Your task to perform on an android device: change the clock display to analog Image 0: 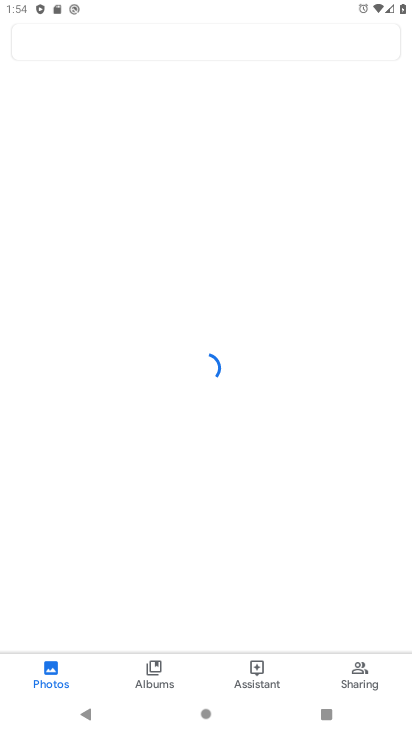
Step 0: press home button
Your task to perform on an android device: change the clock display to analog Image 1: 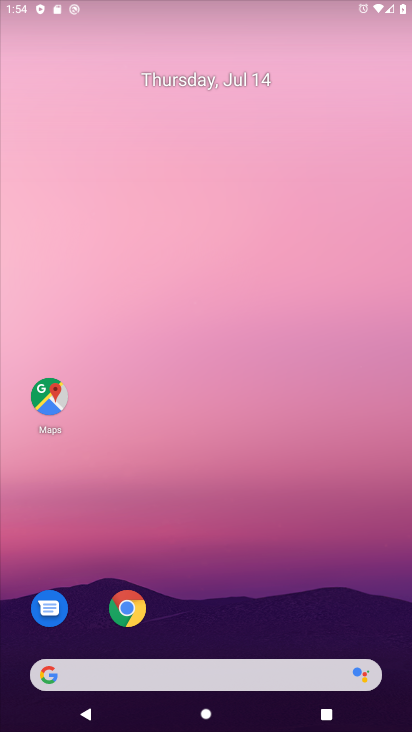
Step 1: drag from (236, 726) to (229, 146)
Your task to perform on an android device: change the clock display to analog Image 2: 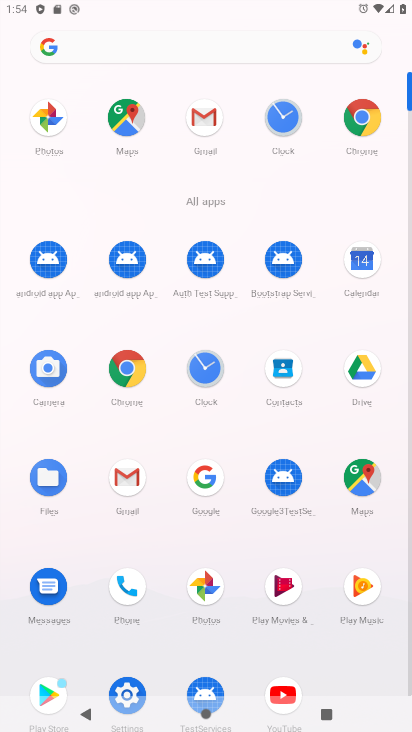
Step 2: click (205, 364)
Your task to perform on an android device: change the clock display to analog Image 3: 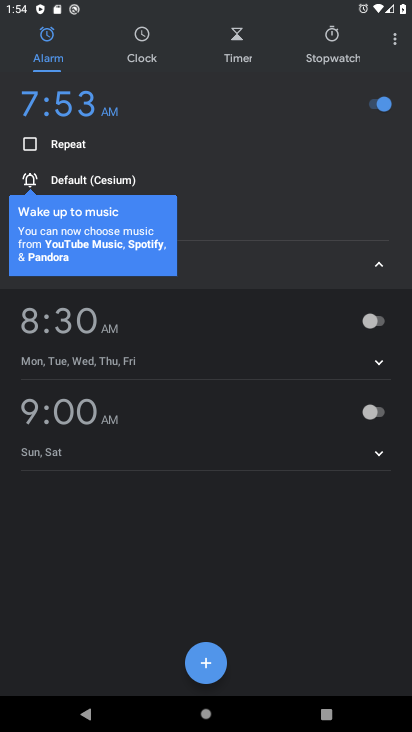
Step 3: click (394, 44)
Your task to perform on an android device: change the clock display to analog Image 4: 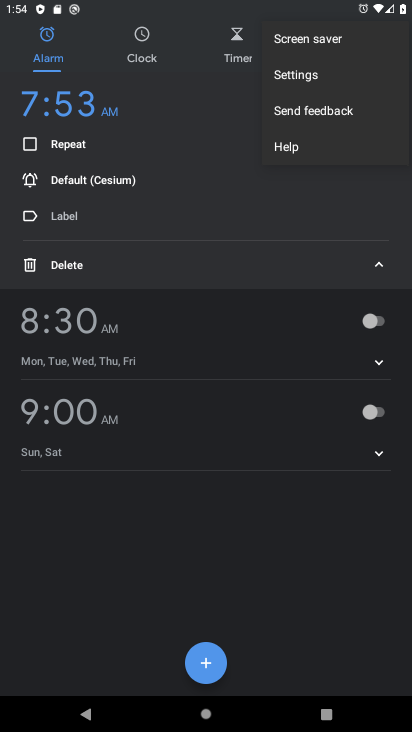
Step 4: click (293, 75)
Your task to perform on an android device: change the clock display to analog Image 5: 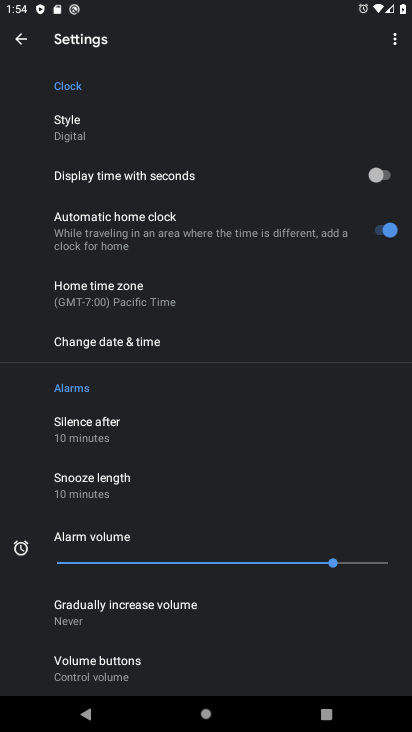
Step 5: click (81, 124)
Your task to perform on an android device: change the clock display to analog Image 6: 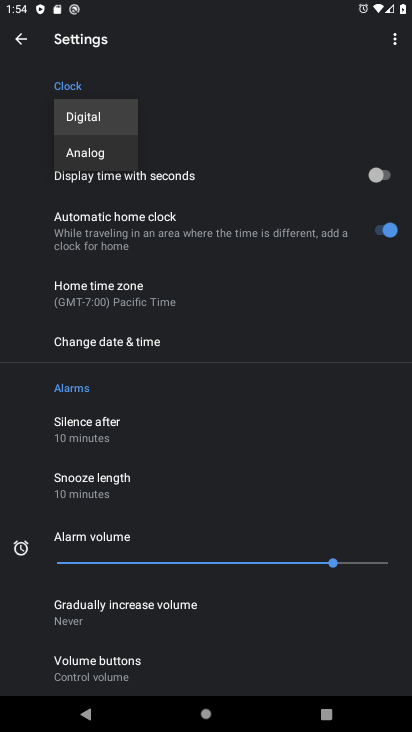
Step 6: click (87, 153)
Your task to perform on an android device: change the clock display to analog Image 7: 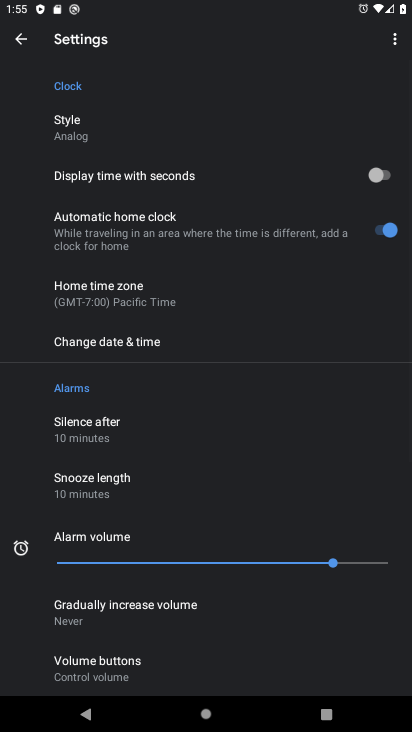
Step 7: task complete